Your task to perform on an android device: add a label to a message in the gmail app Image 0: 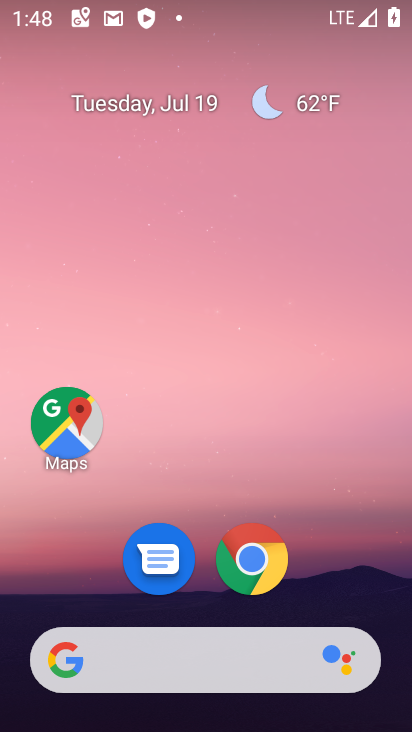
Step 0: drag from (347, 597) to (281, 111)
Your task to perform on an android device: add a label to a message in the gmail app Image 1: 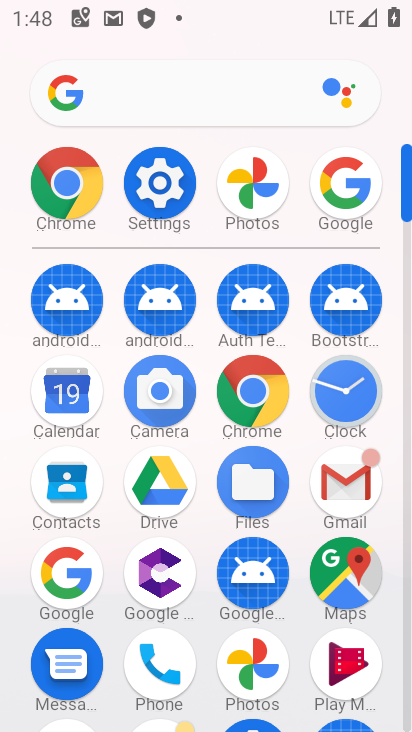
Step 1: click (328, 484)
Your task to perform on an android device: add a label to a message in the gmail app Image 2: 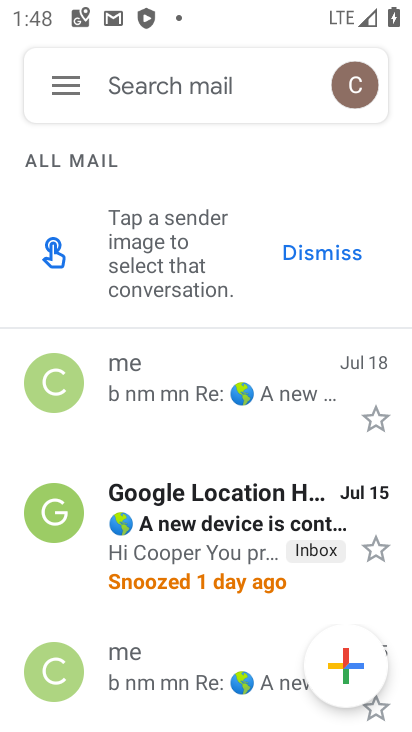
Step 2: click (245, 513)
Your task to perform on an android device: add a label to a message in the gmail app Image 3: 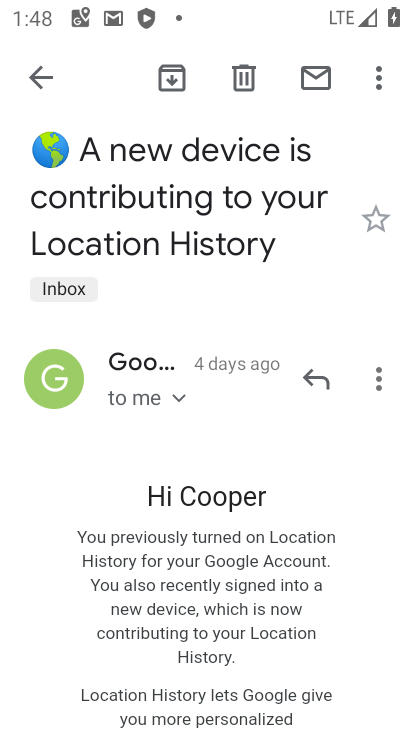
Step 3: click (372, 75)
Your task to perform on an android device: add a label to a message in the gmail app Image 4: 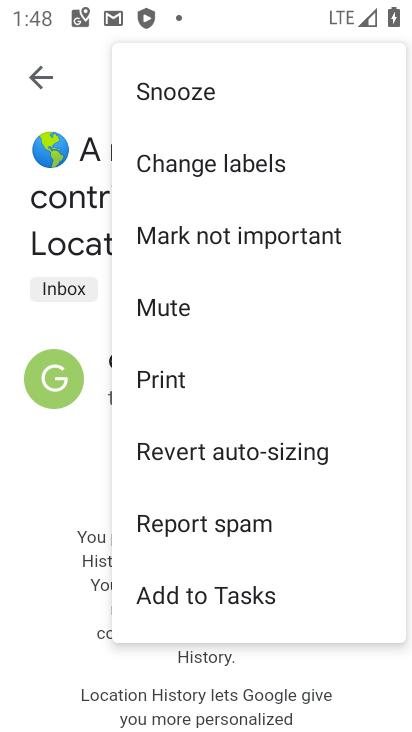
Step 4: click (245, 171)
Your task to perform on an android device: add a label to a message in the gmail app Image 5: 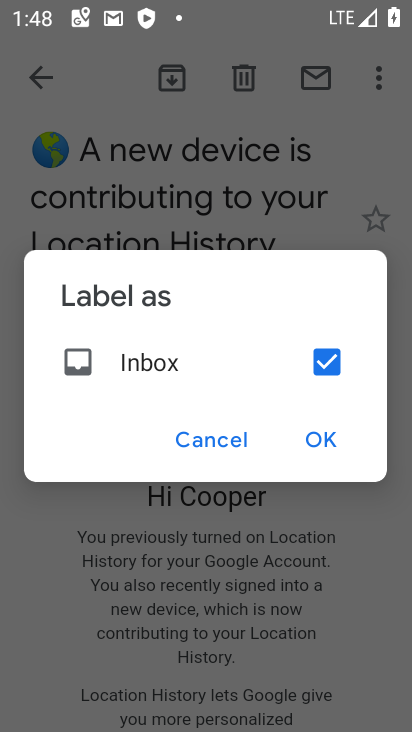
Step 5: click (322, 426)
Your task to perform on an android device: add a label to a message in the gmail app Image 6: 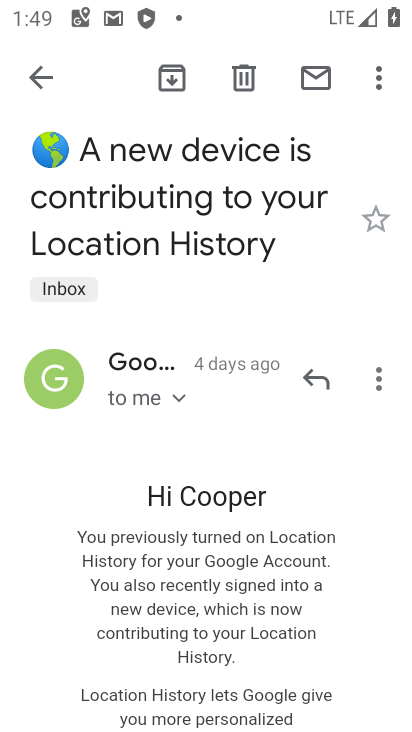
Step 6: task complete